Your task to perform on an android device: turn on the 12-hour format for clock Image 0: 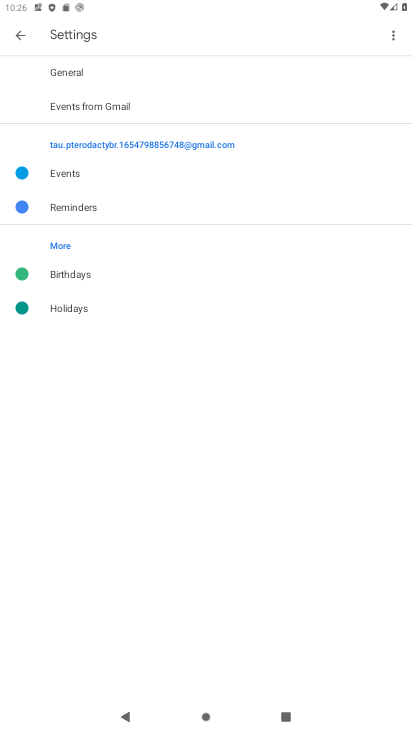
Step 0: press home button
Your task to perform on an android device: turn on the 12-hour format for clock Image 1: 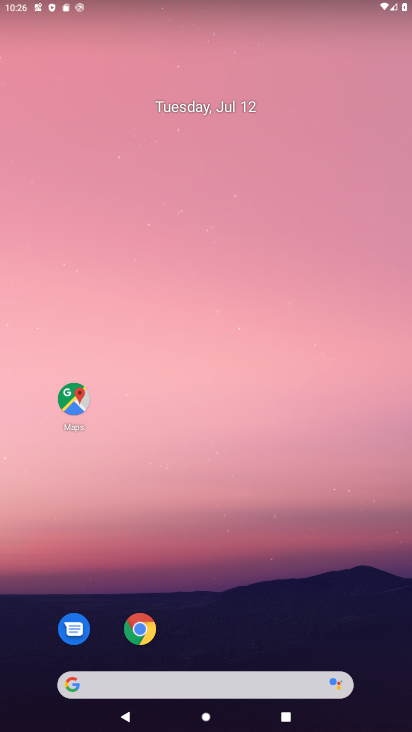
Step 1: drag from (291, 614) to (207, 106)
Your task to perform on an android device: turn on the 12-hour format for clock Image 2: 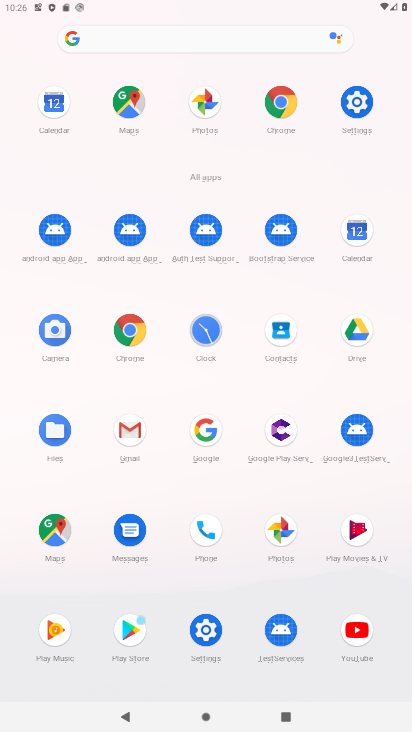
Step 2: click (208, 328)
Your task to perform on an android device: turn on the 12-hour format for clock Image 3: 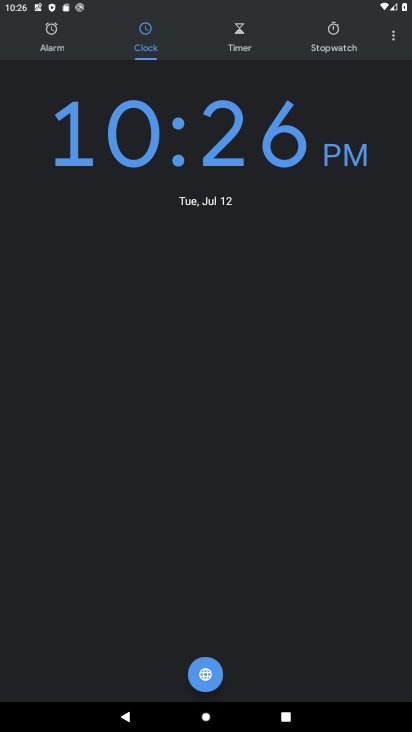
Step 3: click (390, 36)
Your task to perform on an android device: turn on the 12-hour format for clock Image 4: 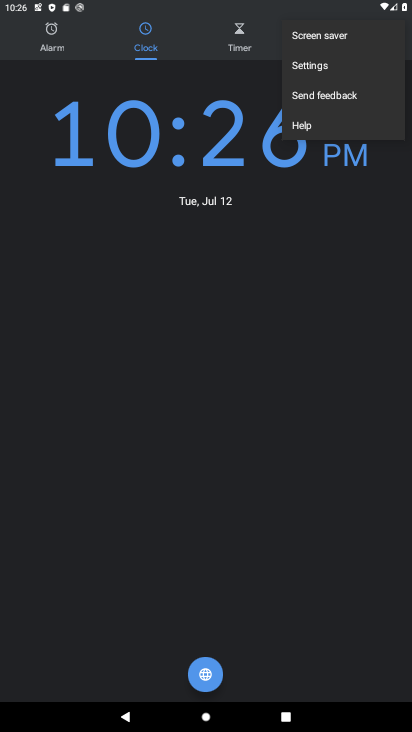
Step 4: click (333, 63)
Your task to perform on an android device: turn on the 12-hour format for clock Image 5: 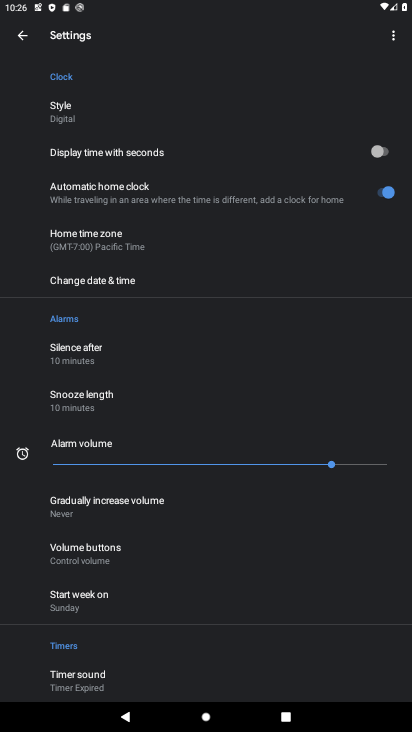
Step 5: click (126, 280)
Your task to perform on an android device: turn on the 12-hour format for clock Image 6: 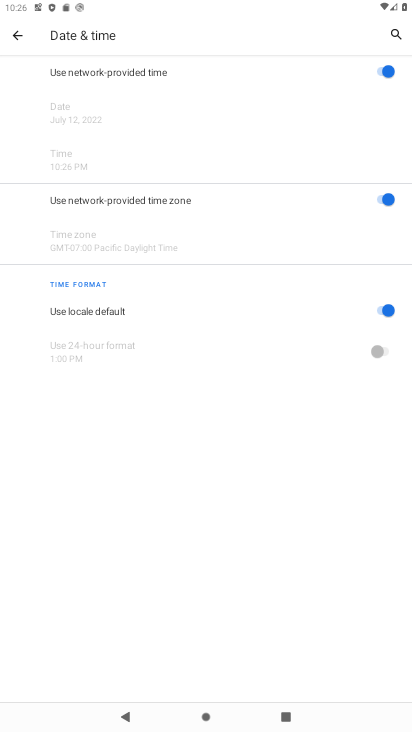
Step 6: task complete